Your task to perform on an android device: uninstall "Contacts" Image 0: 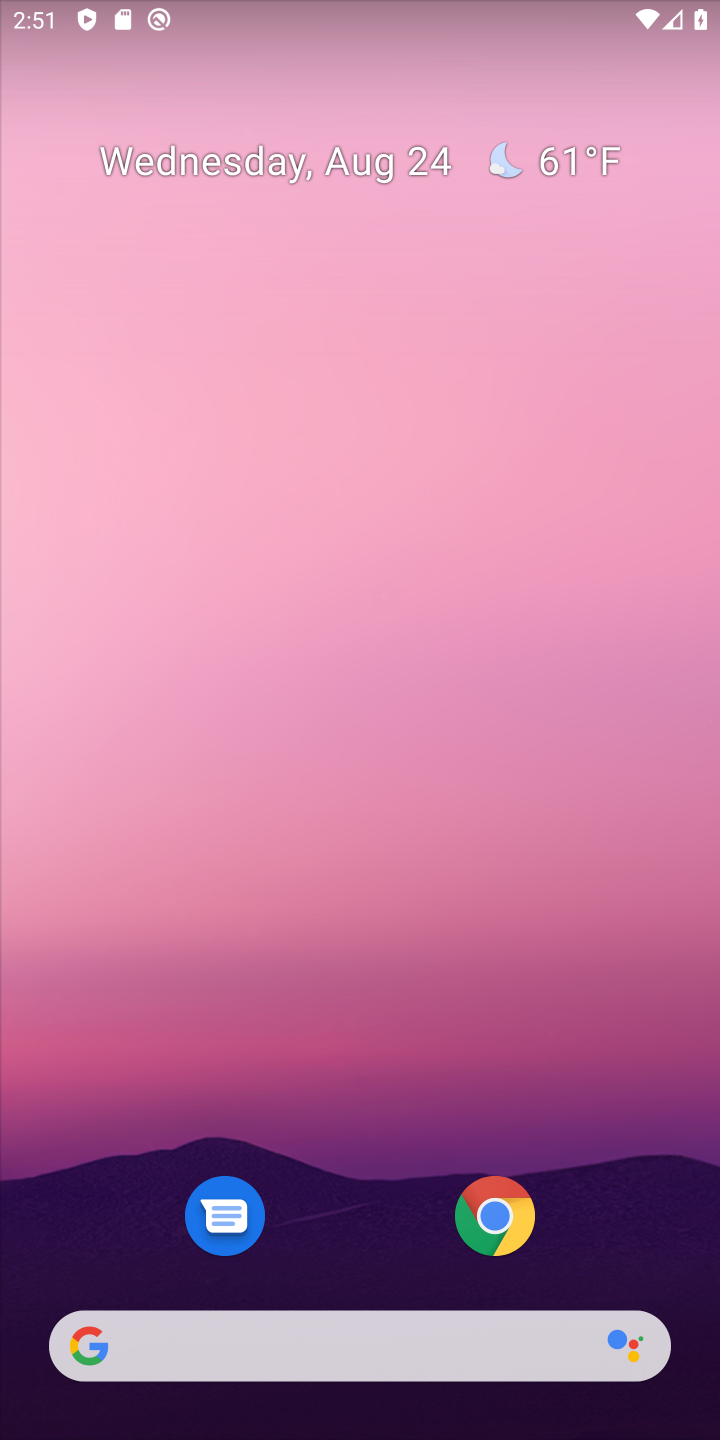
Step 0: drag from (602, 1268) to (639, 187)
Your task to perform on an android device: uninstall "Contacts" Image 1: 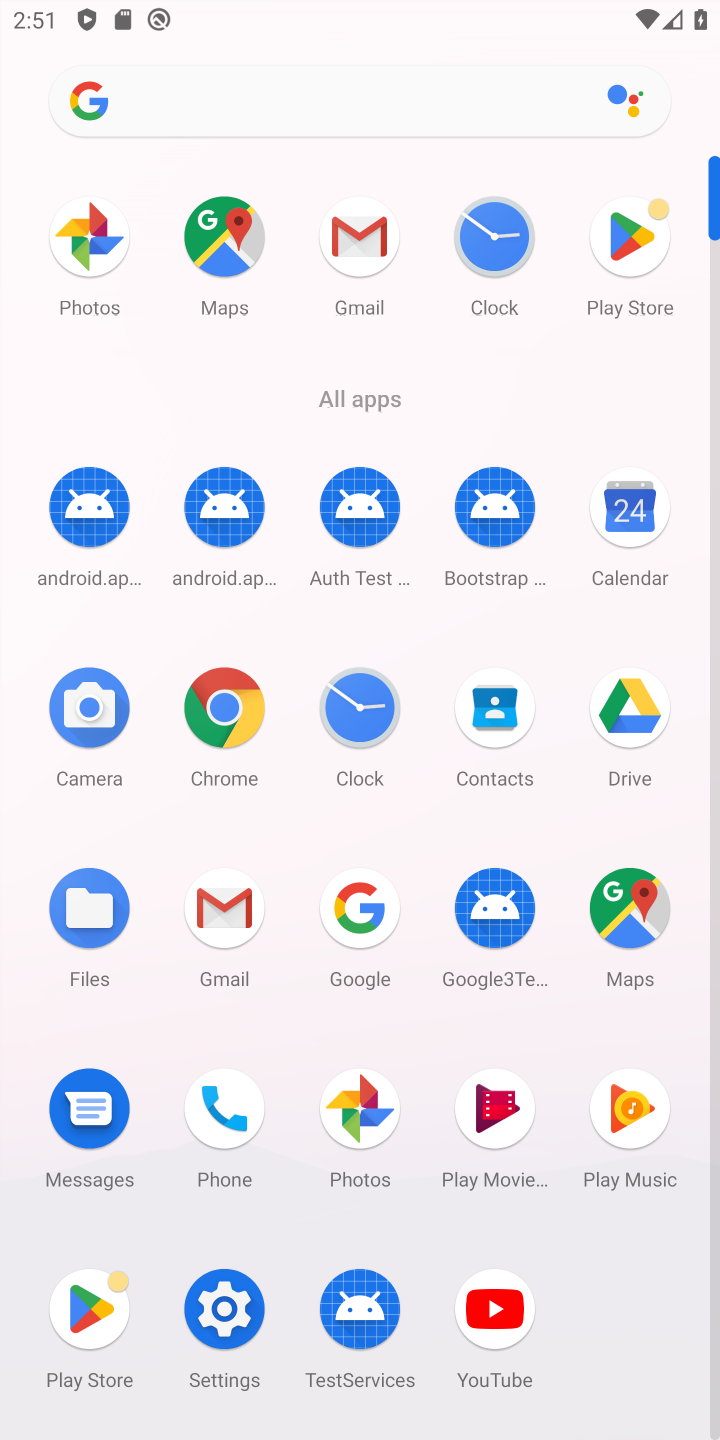
Step 1: click (624, 231)
Your task to perform on an android device: uninstall "Contacts" Image 2: 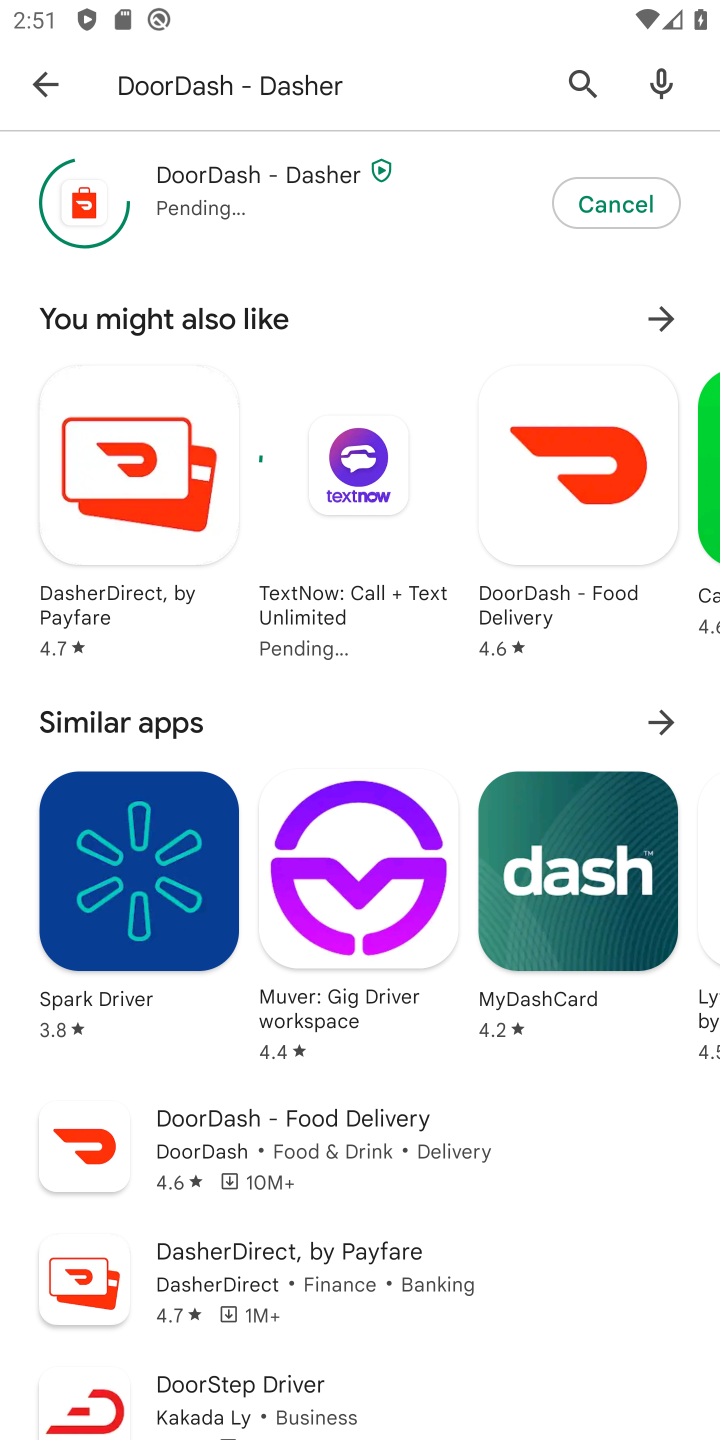
Step 2: press back button
Your task to perform on an android device: uninstall "Contacts" Image 3: 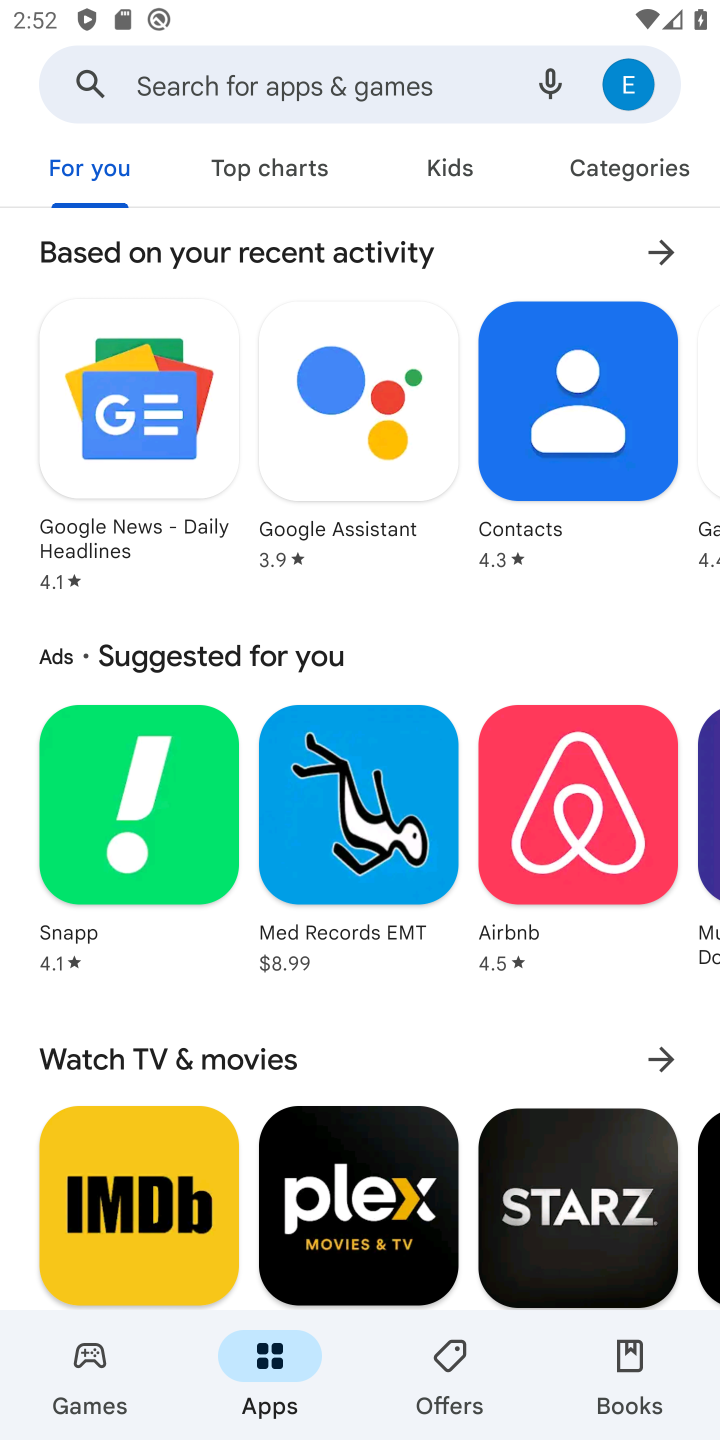
Step 3: click (359, 84)
Your task to perform on an android device: uninstall "Contacts" Image 4: 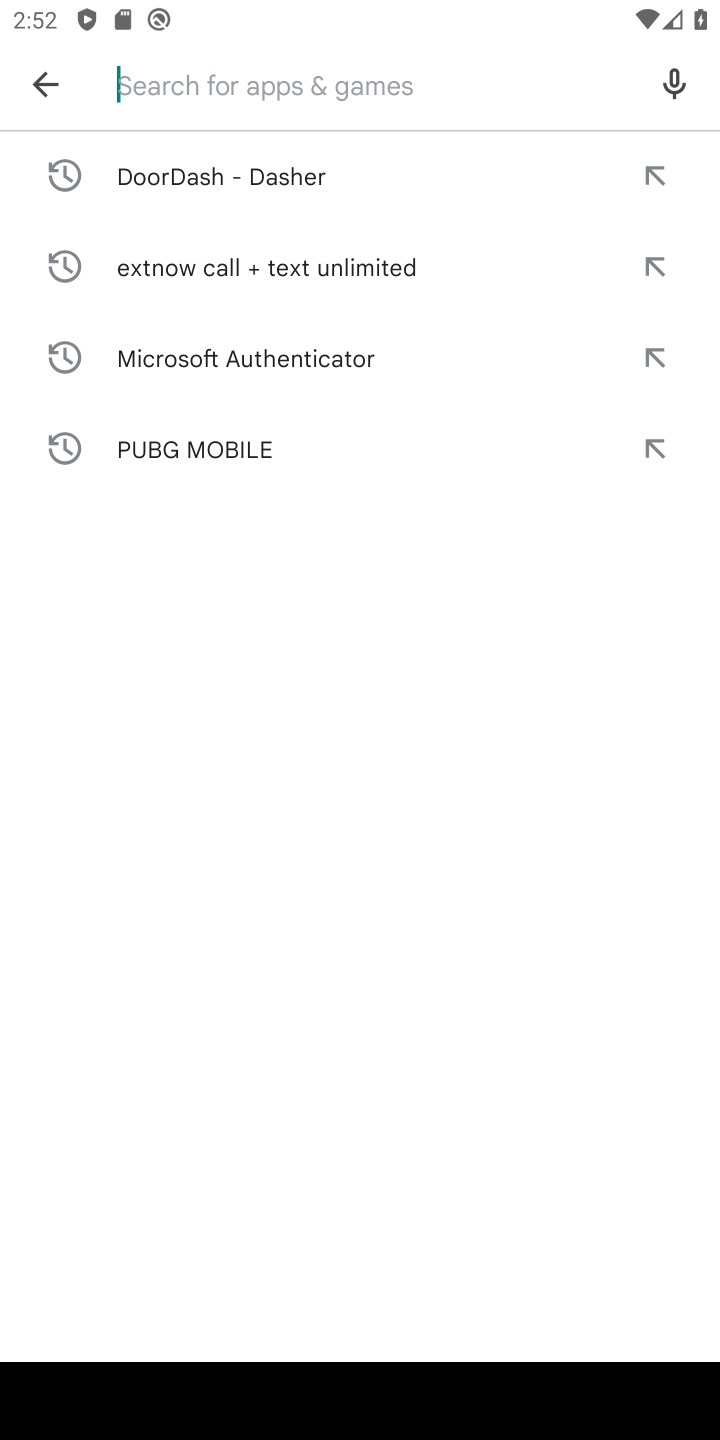
Step 4: type "Contacts"
Your task to perform on an android device: uninstall "Contacts" Image 5: 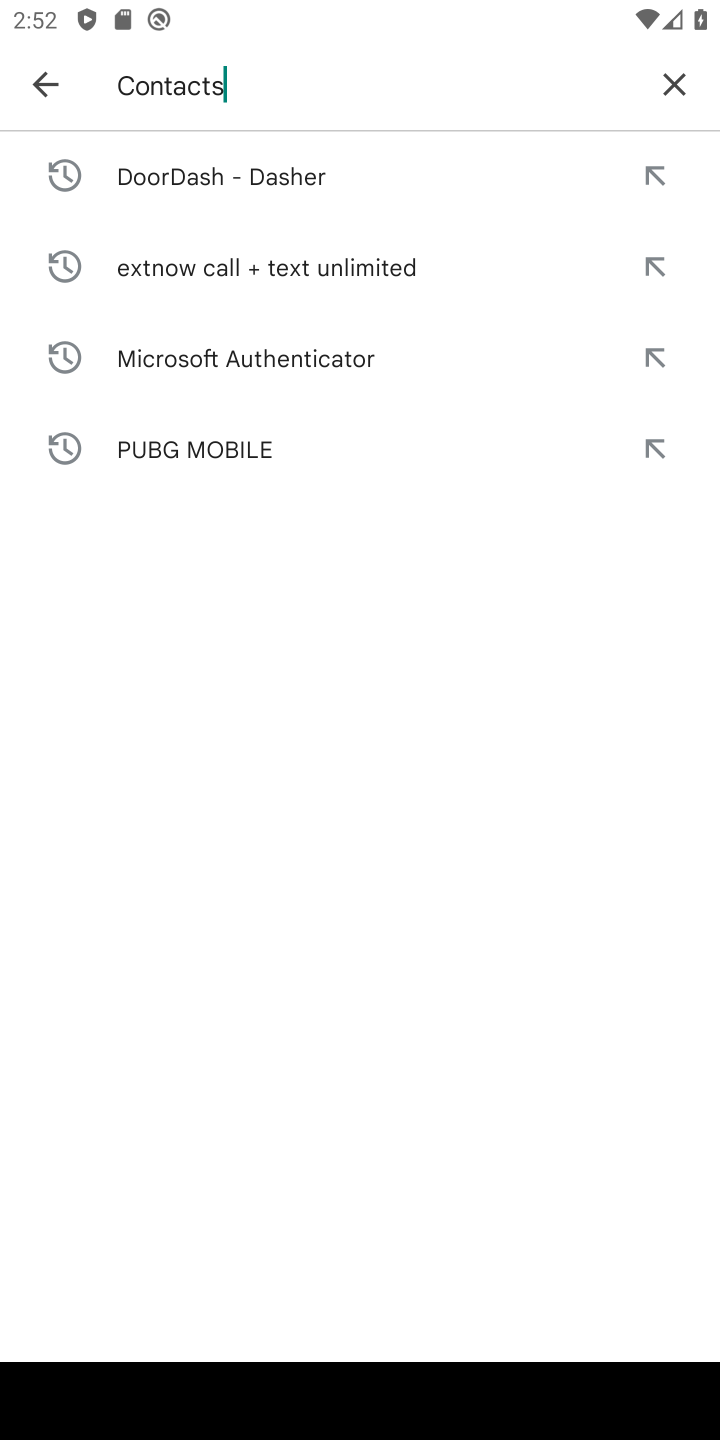
Step 5: press enter
Your task to perform on an android device: uninstall "Contacts" Image 6: 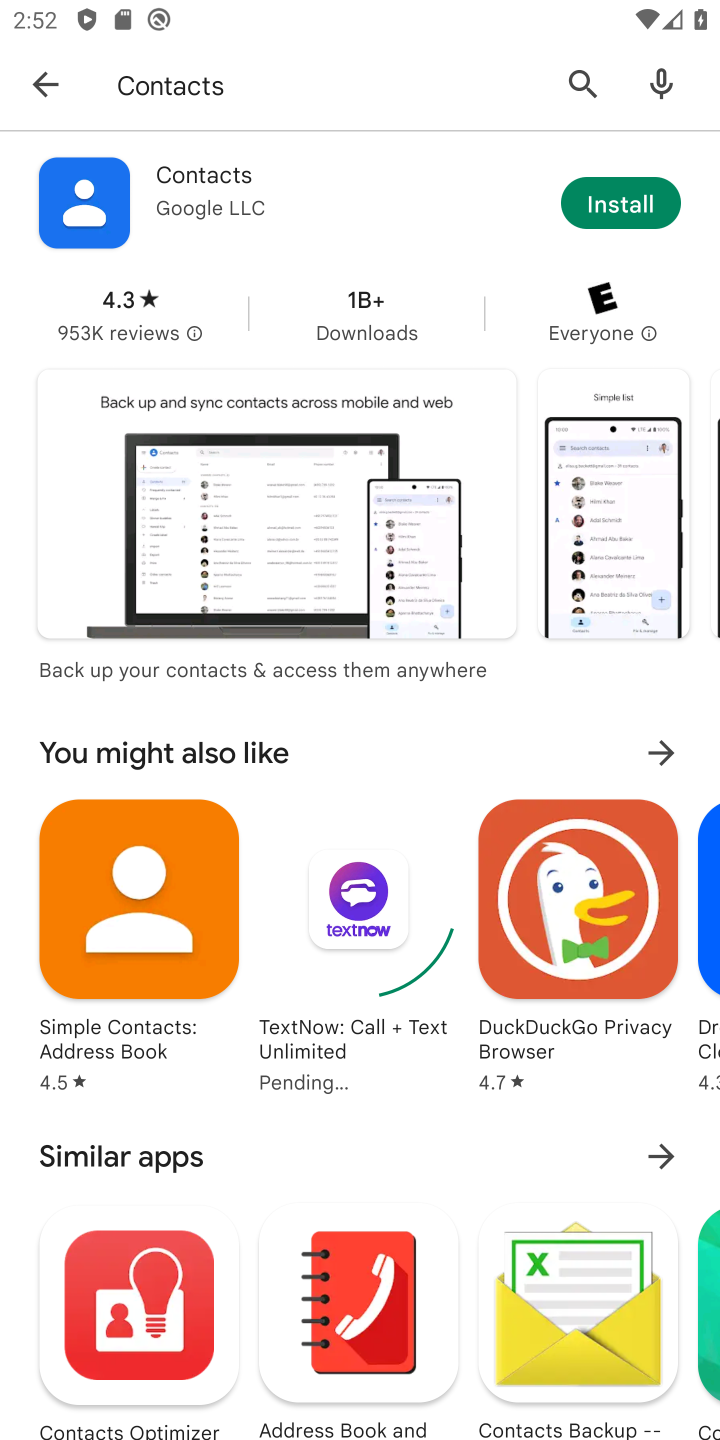
Step 6: task complete